Your task to perform on an android device: Search for vegetarian restaurants on Maps Image 0: 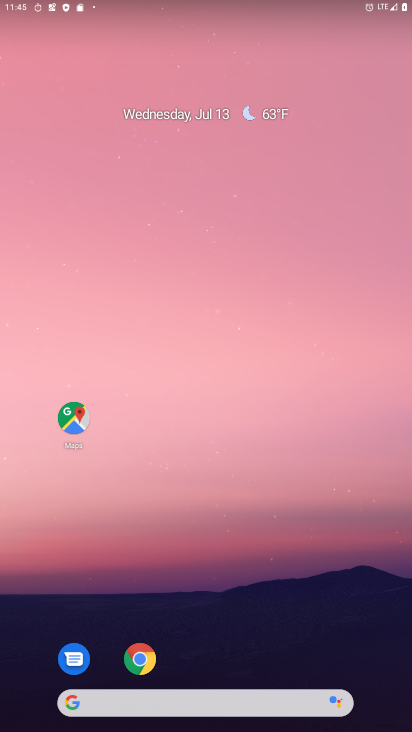
Step 0: drag from (241, 659) to (228, 131)
Your task to perform on an android device: Search for vegetarian restaurants on Maps Image 1: 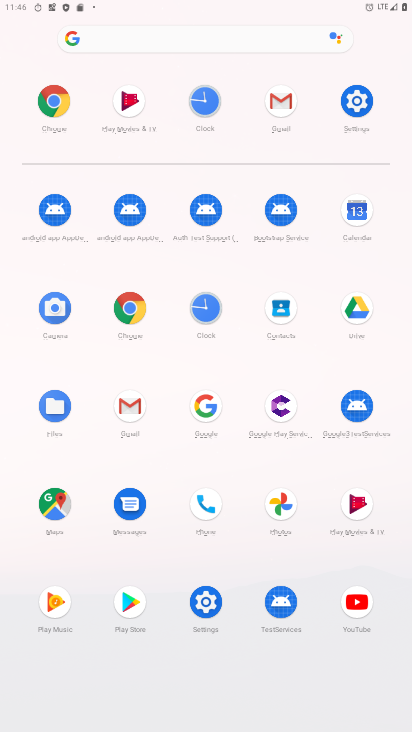
Step 1: click (51, 498)
Your task to perform on an android device: Search for vegetarian restaurants on Maps Image 2: 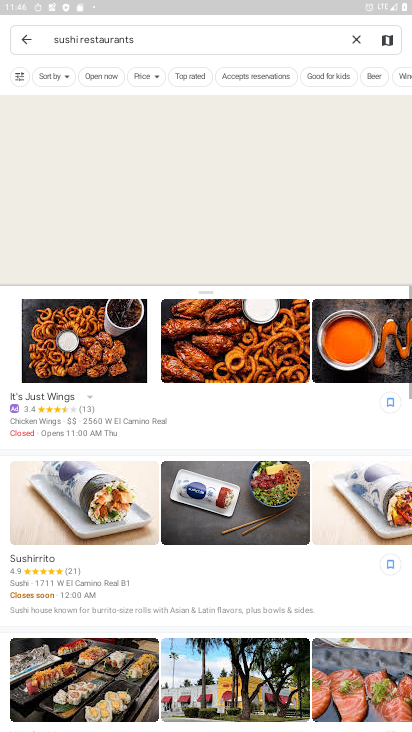
Step 2: click (249, 45)
Your task to perform on an android device: Search for vegetarian restaurants on Maps Image 3: 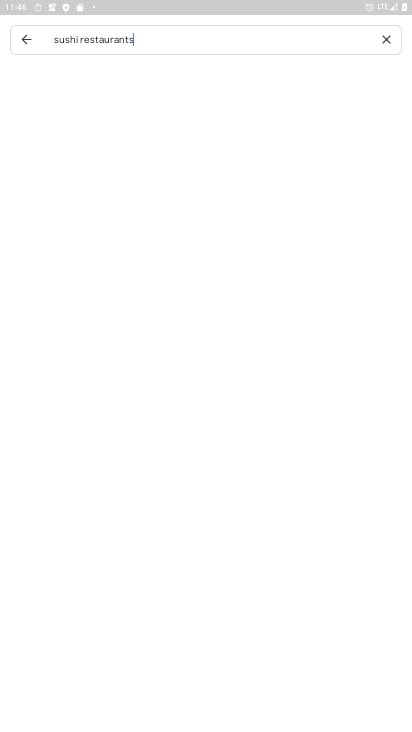
Step 3: click (394, 39)
Your task to perform on an android device: Search for vegetarian restaurants on Maps Image 4: 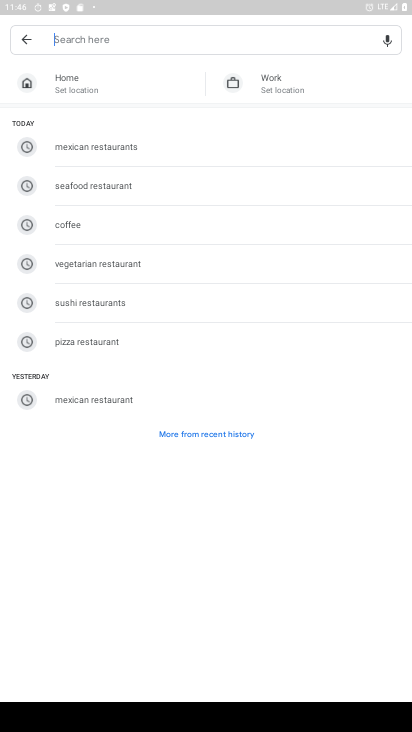
Step 4: type "vegetarian restaurants"
Your task to perform on an android device: Search for vegetarian restaurants on Maps Image 5: 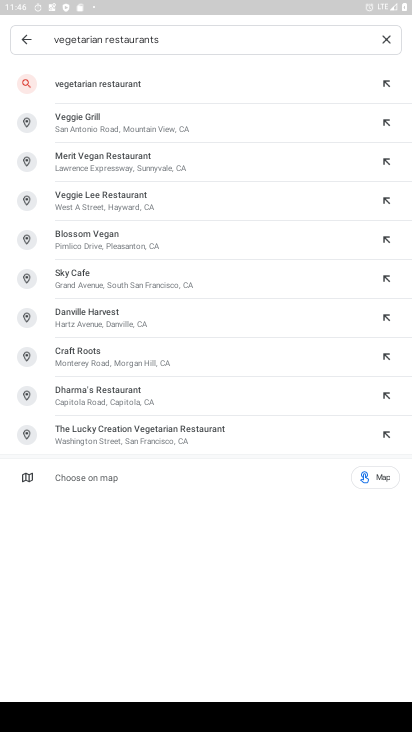
Step 5: press enter
Your task to perform on an android device: Search for vegetarian restaurants on Maps Image 6: 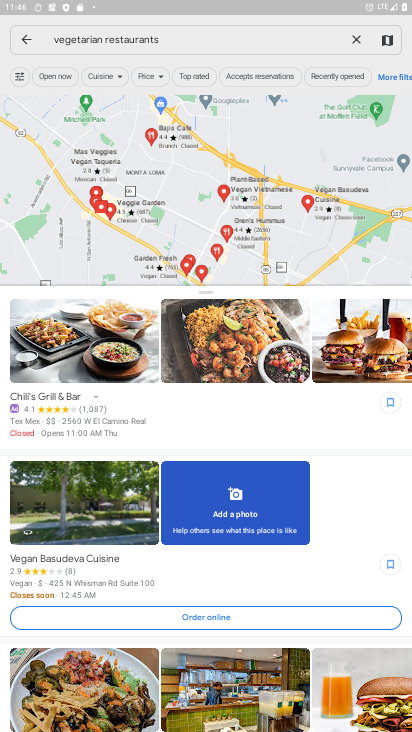
Step 6: task complete